Your task to perform on an android device: toggle notifications settings in the gmail app Image 0: 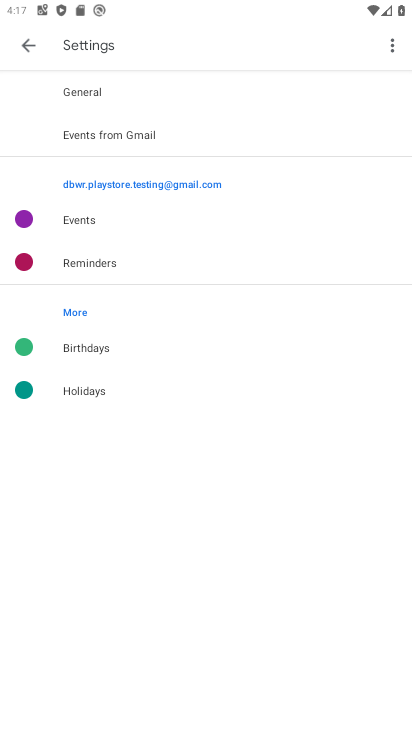
Step 0: drag from (201, 641) to (315, 57)
Your task to perform on an android device: toggle notifications settings in the gmail app Image 1: 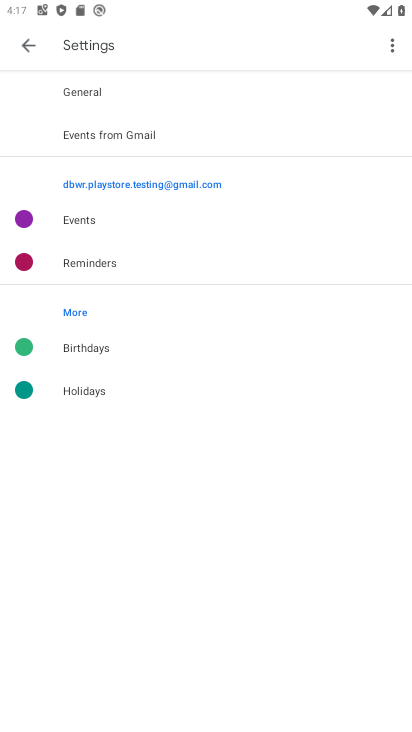
Step 1: press back button
Your task to perform on an android device: toggle notifications settings in the gmail app Image 2: 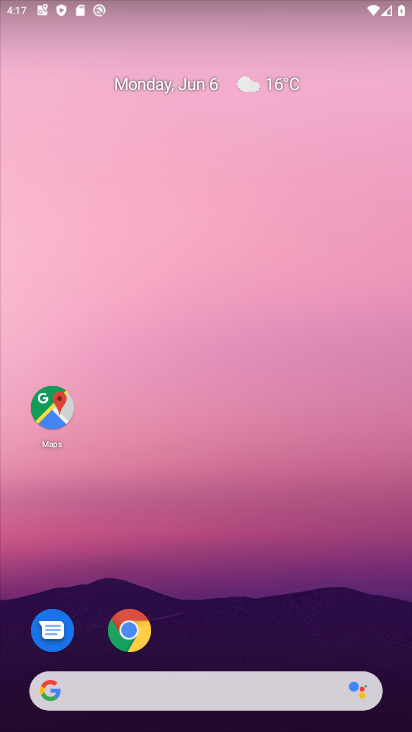
Step 2: drag from (204, 626) to (285, 66)
Your task to perform on an android device: toggle notifications settings in the gmail app Image 3: 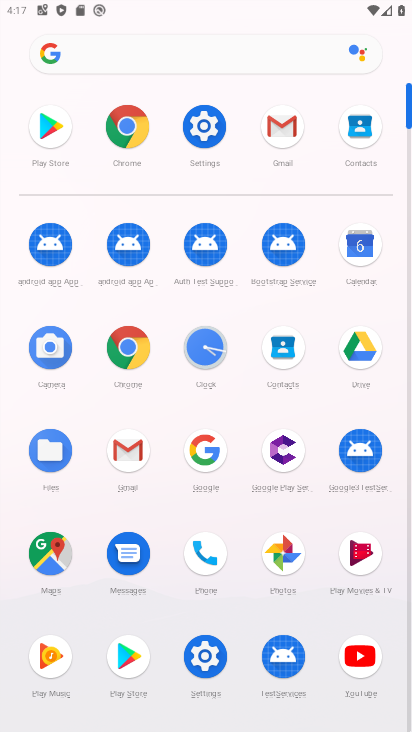
Step 3: click (281, 121)
Your task to perform on an android device: toggle notifications settings in the gmail app Image 4: 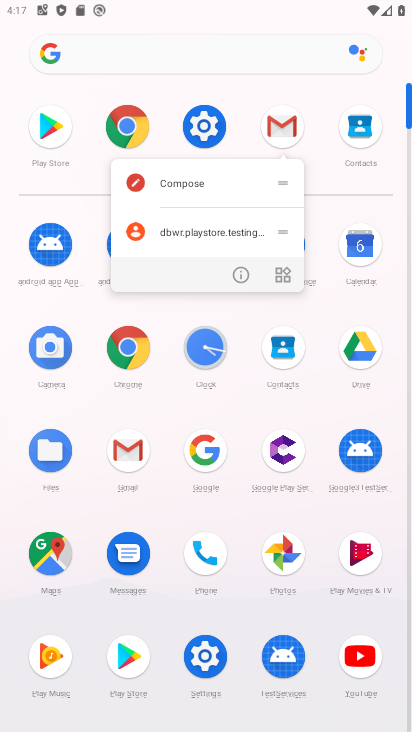
Step 4: click (233, 283)
Your task to perform on an android device: toggle notifications settings in the gmail app Image 5: 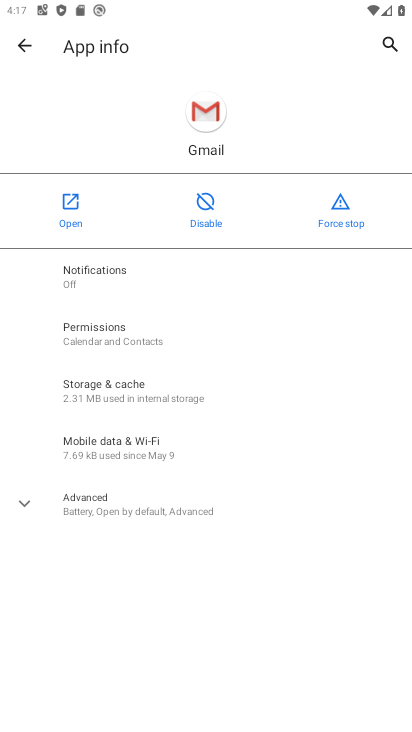
Step 5: click (83, 264)
Your task to perform on an android device: toggle notifications settings in the gmail app Image 6: 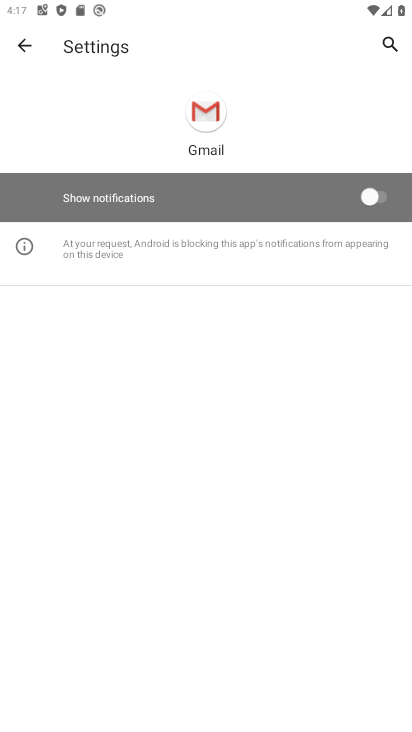
Step 6: click (373, 189)
Your task to perform on an android device: toggle notifications settings in the gmail app Image 7: 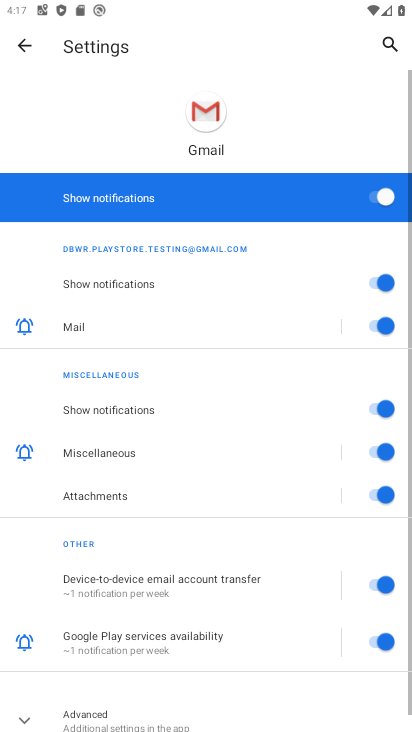
Step 7: task complete